Your task to perform on an android device: Open calendar and show me the fourth week of next month Image 0: 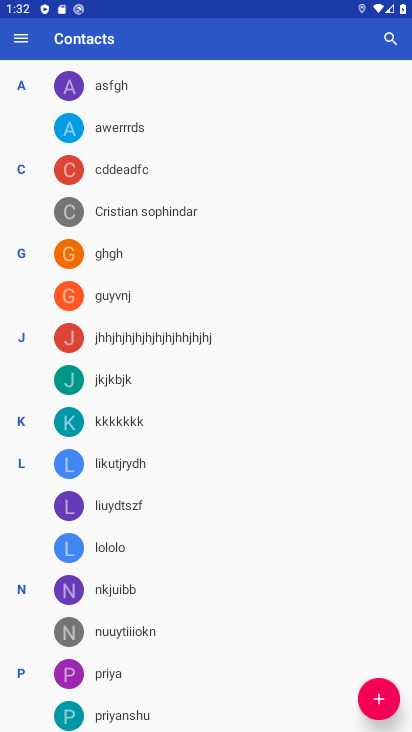
Step 0: press home button
Your task to perform on an android device: Open calendar and show me the fourth week of next month Image 1: 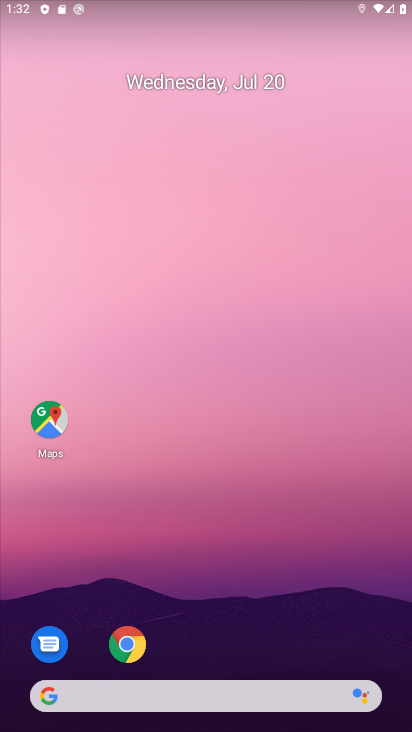
Step 1: drag from (198, 618) to (156, 92)
Your task to perform on an android device: Open calendar and show me the fourth week of next month Image 2: 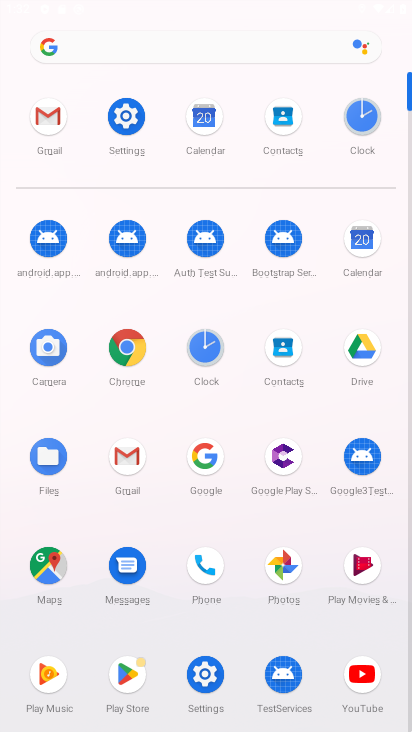
Step 2: click (210, 121)
Your task to perform on an android device: Open calendar and show me the fourth week of next month Image 3: 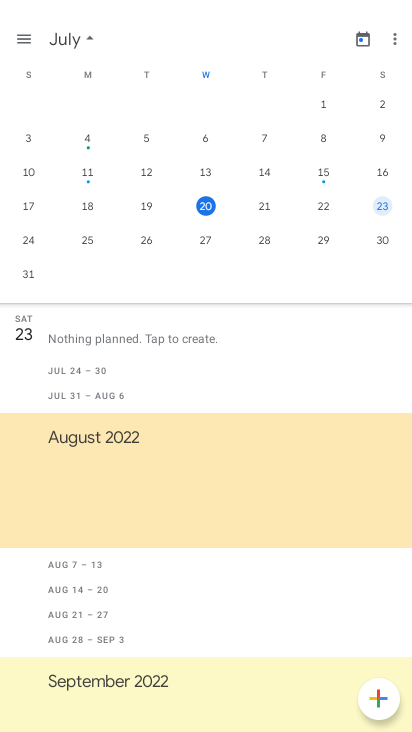
Step 3: drag from (391, 199) to (90, 179)
Your task to perform on an android device: Open calendar and show me the fourth week of next month Image 4: 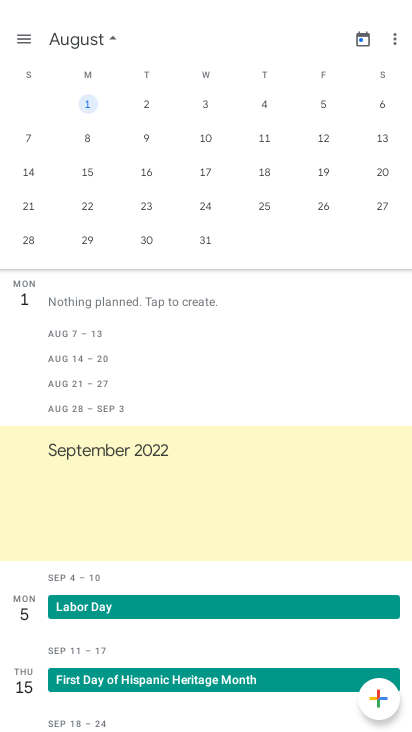
Step 4: click (40, 209)
Your task to perform on an android device: Open calendar and show me the fourth week of next month Image 5: 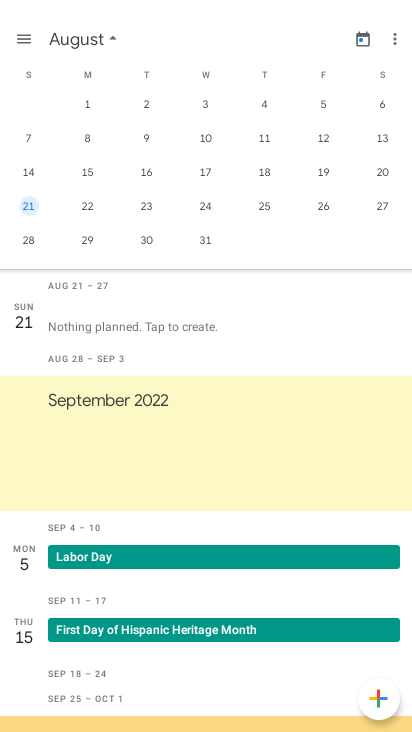
Step 5: task complete